Your task to perform on an android device: Open Google Image 0: 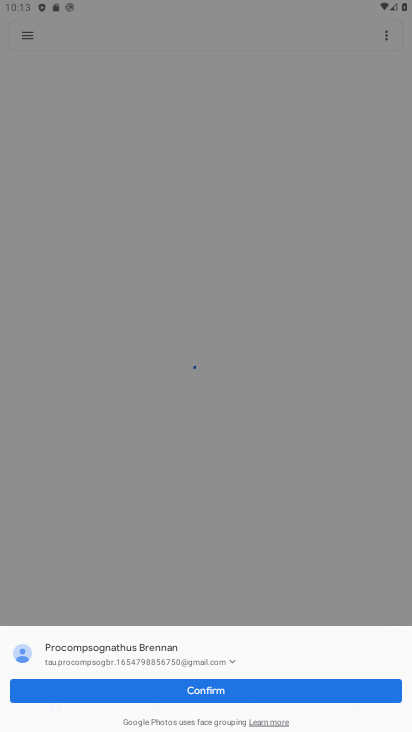
Step 0: press home button
Your task to perform on an android device: Open Google Image 1: 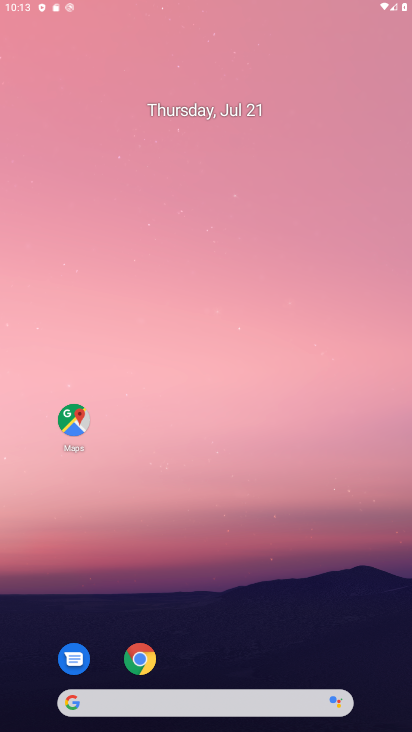
Step 1: press home button
Your task to perform on an android device: Open Google Image 2: 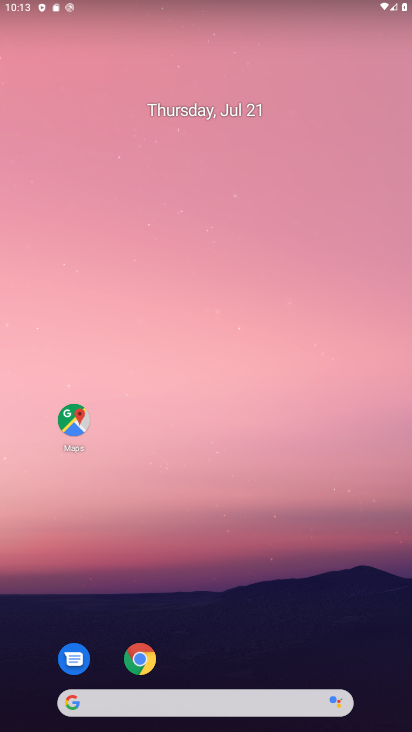
Step 2: drag from (187, 724) to (164, 279)
Your task to perform on an android device: Open Google Image 3: 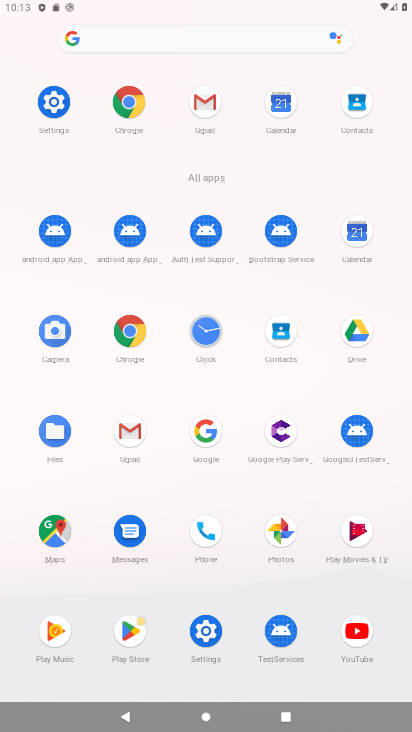
Step 3: click (210, 434)
Your task to perform on an android device: Open Google Image 4: 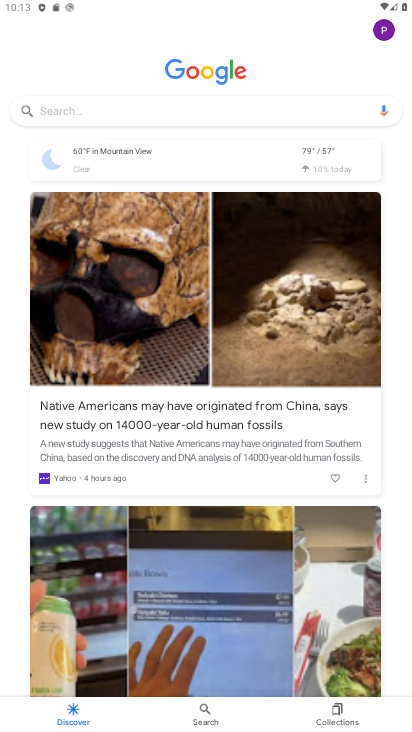
Step 4: task complete